Your task to perform on an android device: turn notification dots on Image 0: 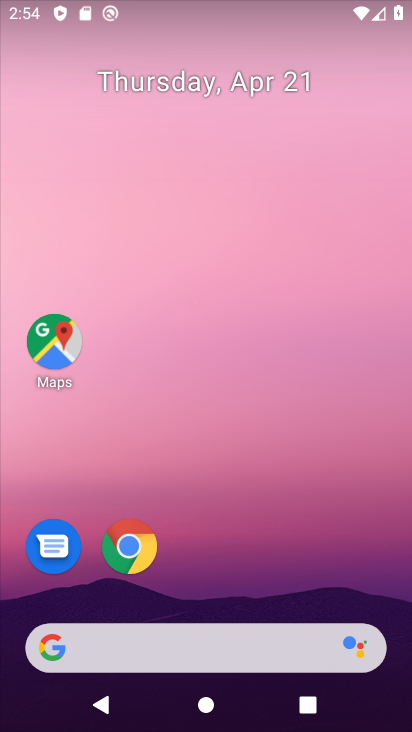
Step 0: drag from (242, 602) to (343, 2)
Your task to perform on an android device: turn notification dots on Image 1: 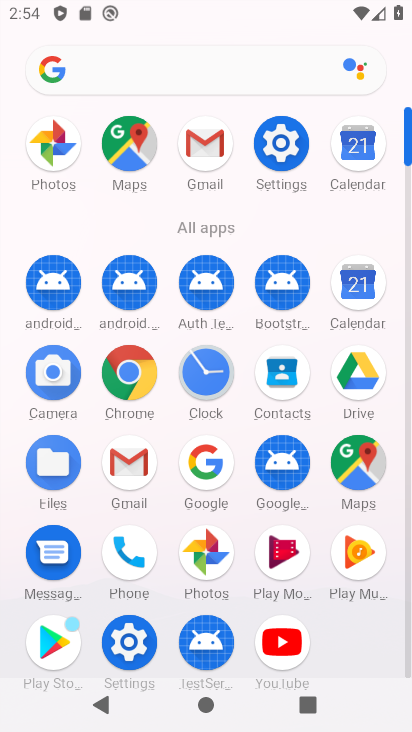
Step 1: click (277, 147)
Your task to perform on an android device: turn notification dots on Image 2: 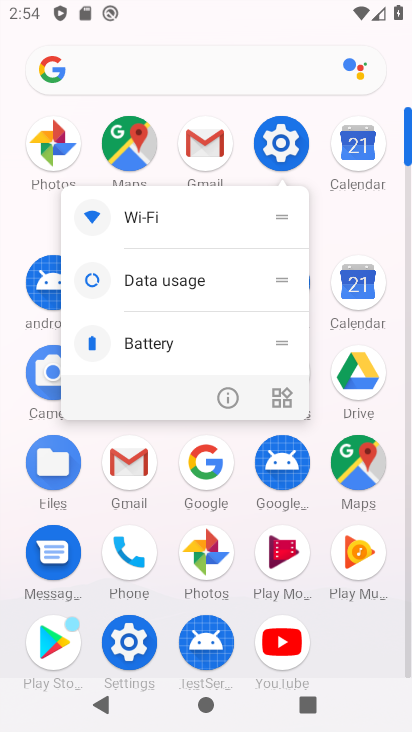
Step 2: click (292, 135)
Your task to perform on an android device: turn notification dots on Image 3: 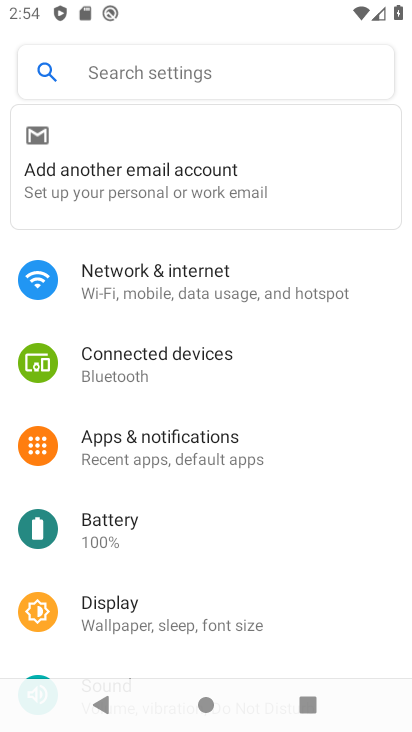
Step 3: click (199, 438)
Your task to perform on an android device: turn notification dots on Image 4: 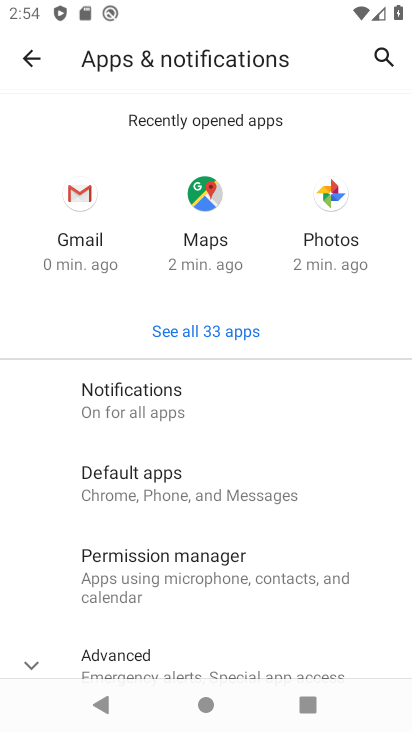
Step 4: click (110, 400)
Your task to perform on an android device: turn notification dots on Image 5: 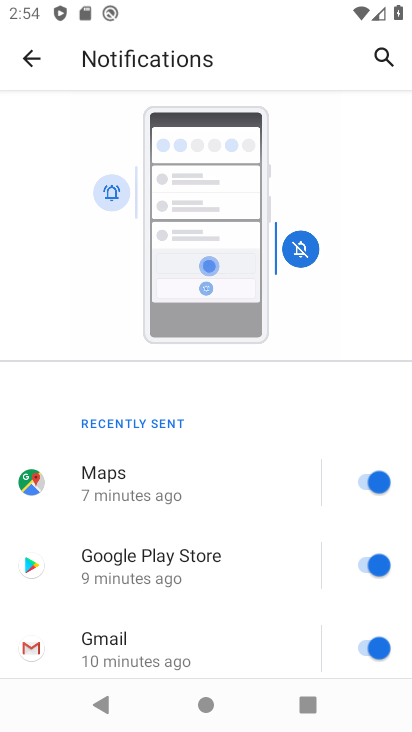
Step 5: drag from (196, 610) to (290, 88)
Your task to perform on an android device: turn notification dots on Image 6: 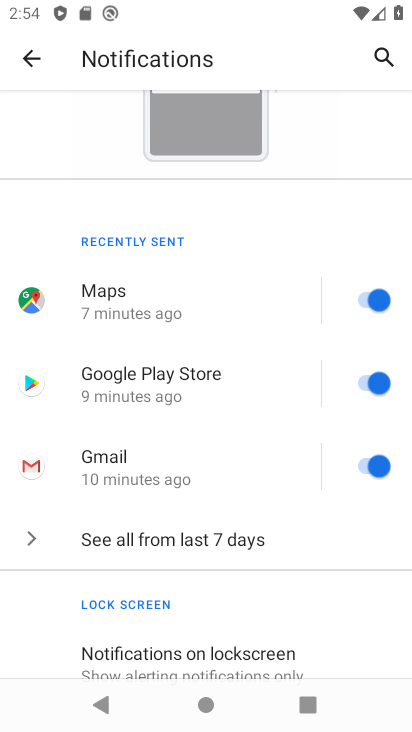
Step 6: drag from (209, 626) to (256, 179)
Your task to perform on an android device: turn notification dots on Image 7: 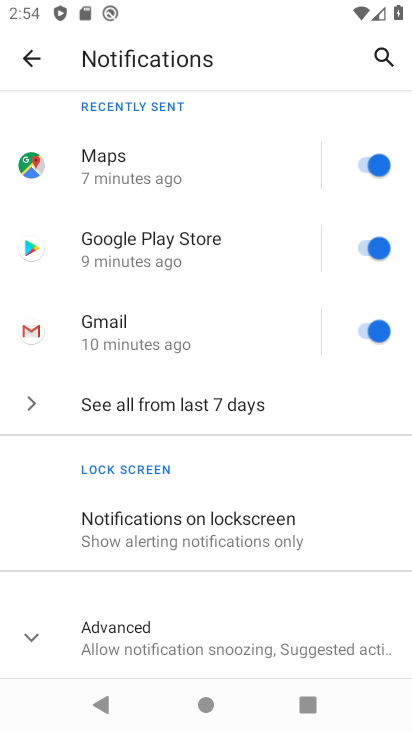
Step 7: click (231, 647)
Your task to perform on an android device: turn notification dots on Image 8: 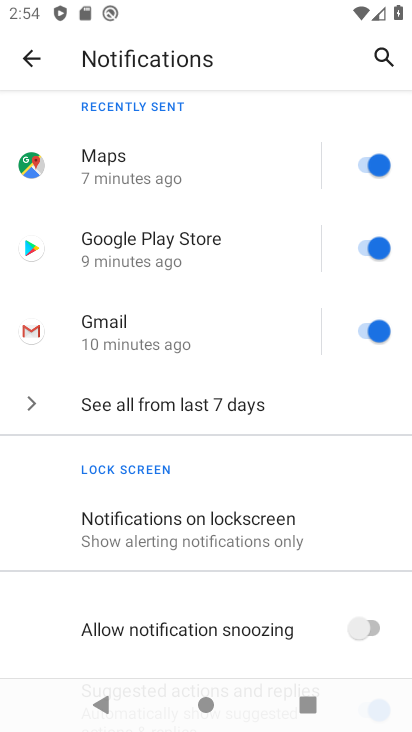
Step 8: task complete